Your task to perform on an android device: Go to location settings Image 0: 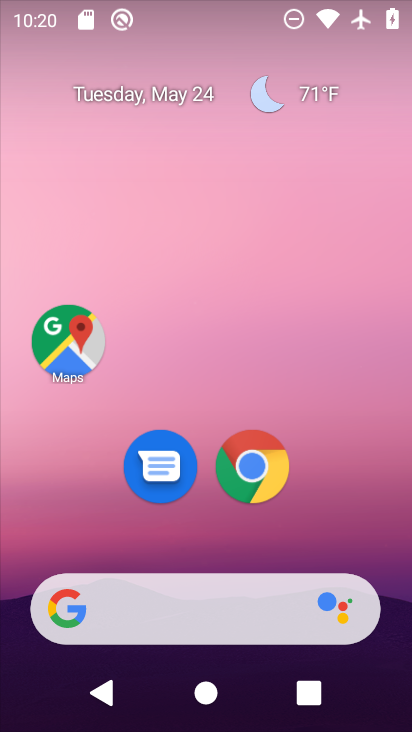
Step 0: drag from (242, 513) to (270, 1)
Your task to perform on an android device: Go to location settings Image 1: 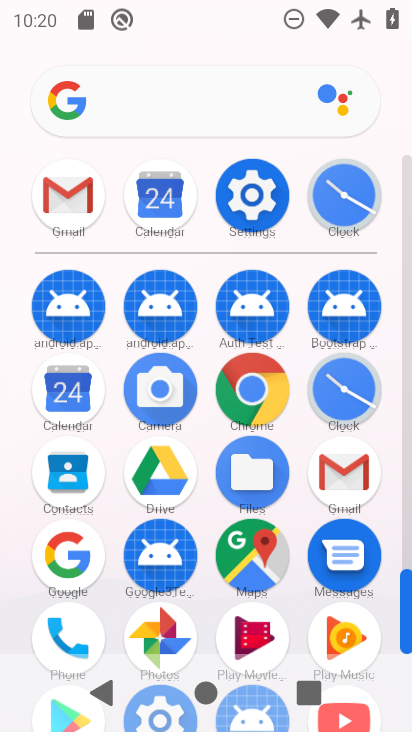
Step 1: click (252, 203)
Your task to perform on an android device: Go to location settings Image 2: 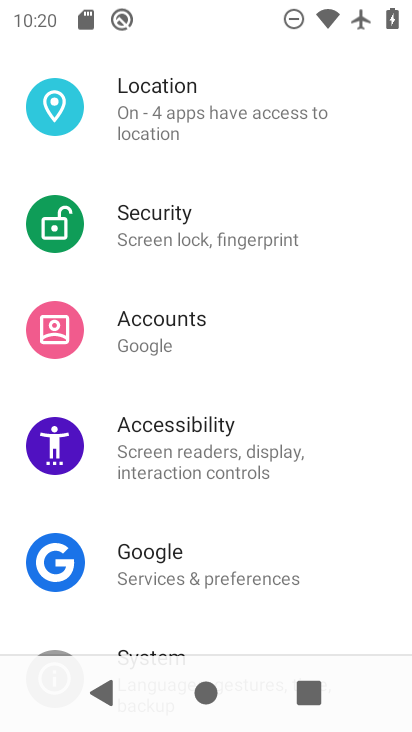
Step 2: drag from (252, 203) to (268, 415)
Your task to perform on an android device: Go to location settings Image 3: 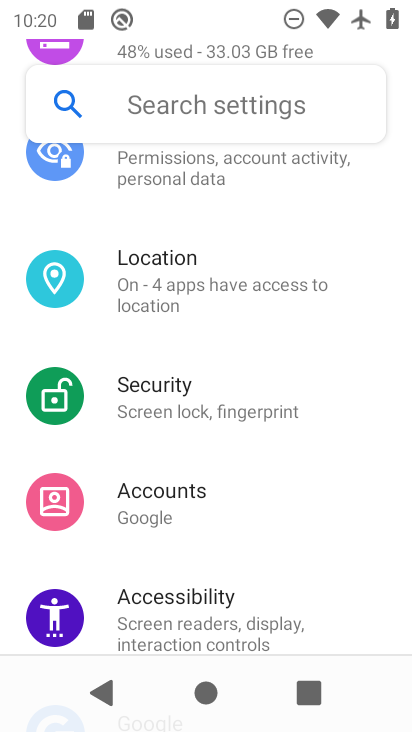
Step 3: click (214, 284)
Your task to perform on an android device: Go to location settings Image 4: 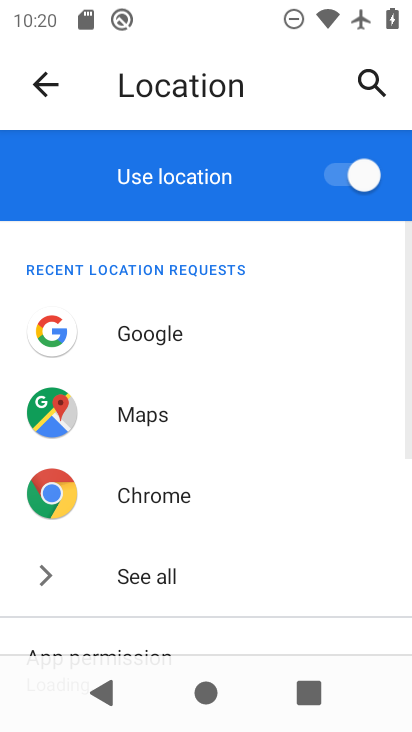
Step 4: task complete